Your task to perform on an android device: check data usage Image 0: 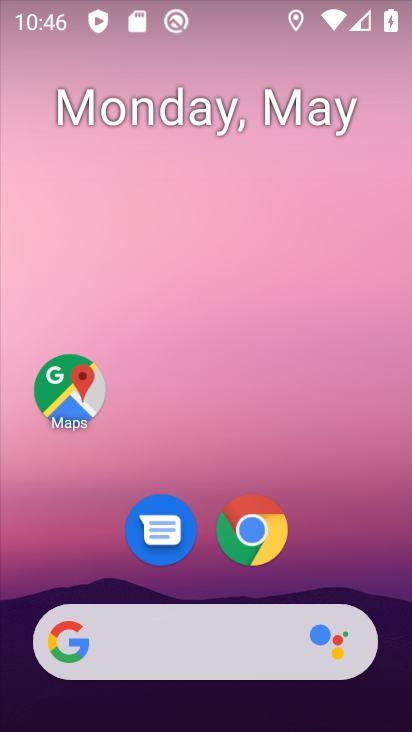
Step 0: drag from (352, 536) to (220, 157)
Your task to perform on an android device: check data usage Image 1: 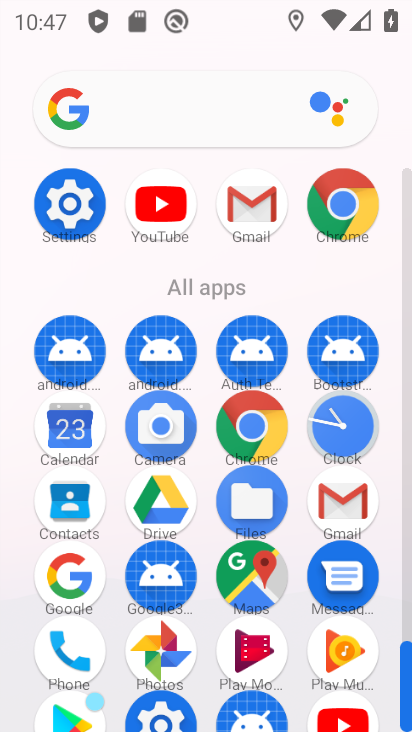
Step 1: click (71, 201)
Your task to perform on an android device: check data usage Image 2: 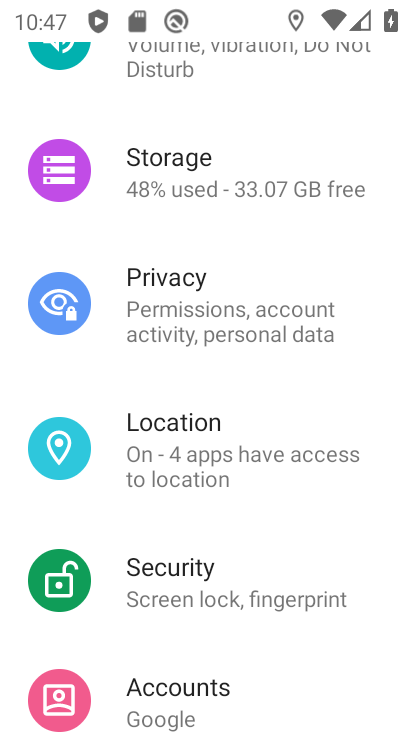
Step 2: drag from (306, 254) to (293, 384)
Your task to perform on an android device: check data usage Image 3: 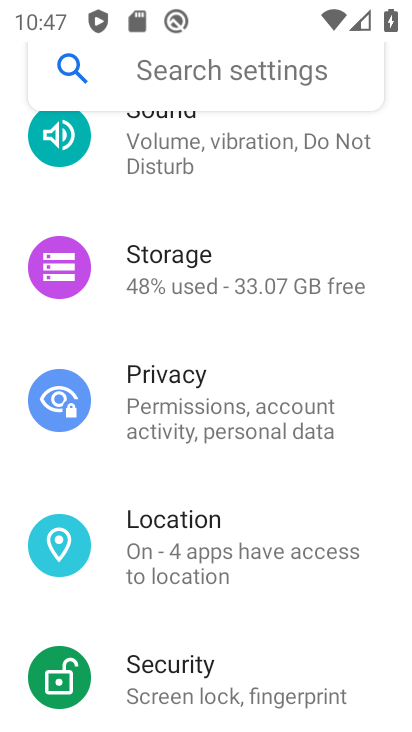
Step 3: drag from (250, 238) to (273, 385)
Your task to perform on an android device: check data usage Image 4: 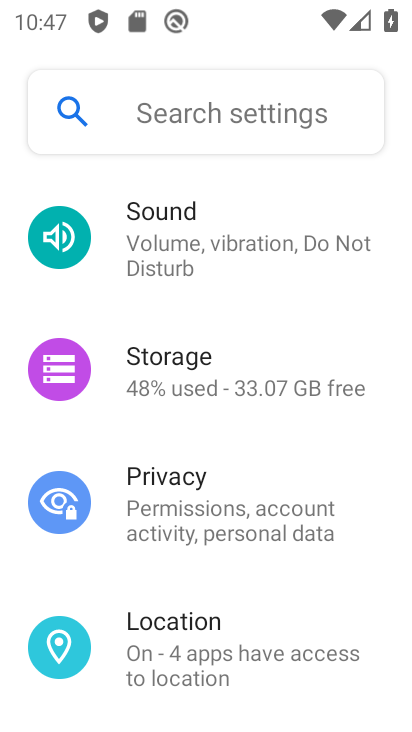
Step 4: drag from (274, 187) to (290, 395)
Your task to perform on an android device: check data usage Image 5: 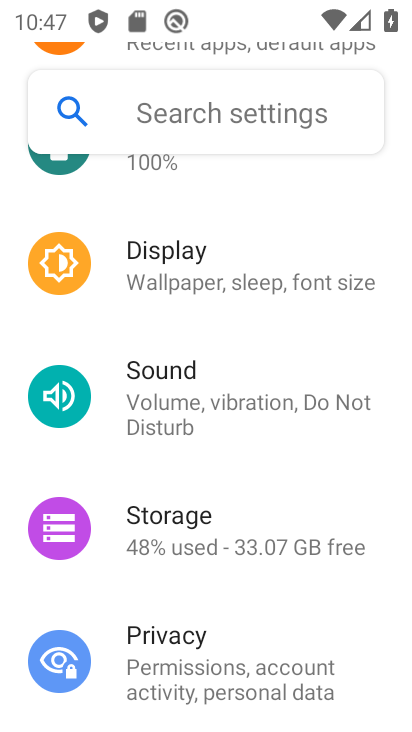
Step 5: drag from (250, 198) to (311, 388)
Your task to perform on an android device: check data usage Image 6: 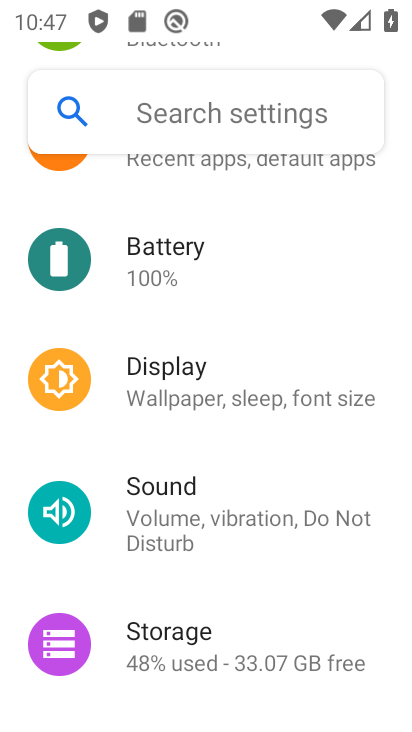
Step 6: drag from (284, 226) to (307, 354)
Your task to perform on an android device: check data usage Image 7: 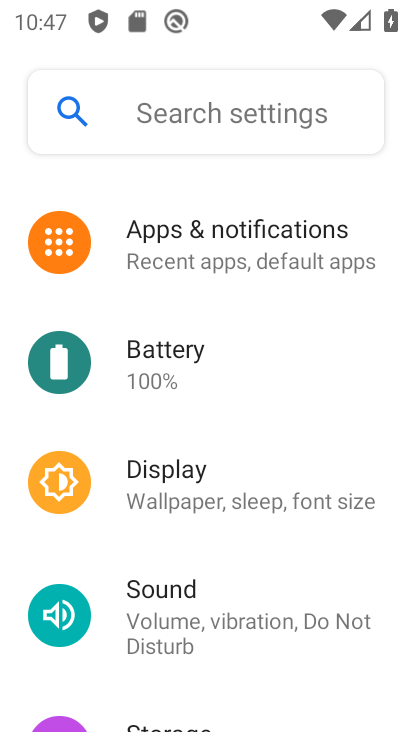
Step 7: drag from (239, 197) to (270, 349)
Your task to perform on an android device: check data usage Image 8: 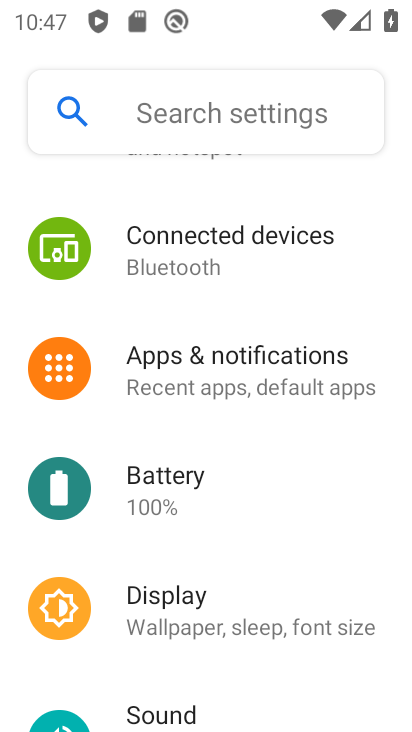
Step 8: drag from (249, 193) to (253, 393)
Your task to perform on an android device: check data usage Image 9: 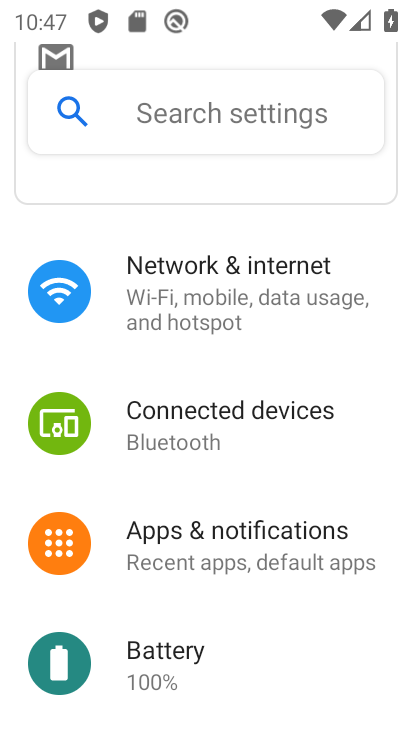
Step 9: click (203, 271)
Your task to perform on an android device: check data usage Image 10: 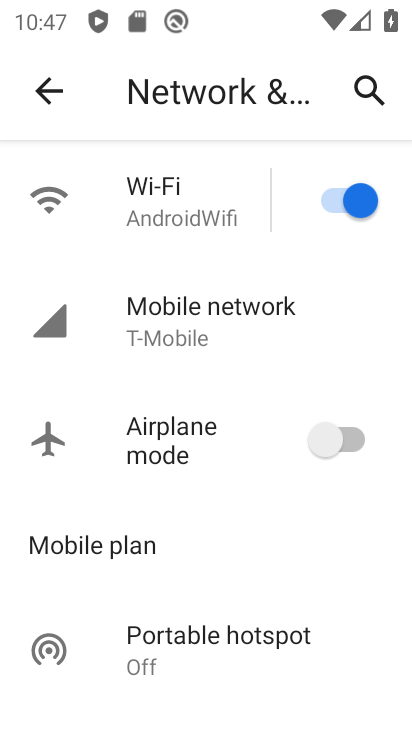
Step 10: click (179, 336)
Your task to perform on an android device: check data usage Image 11: 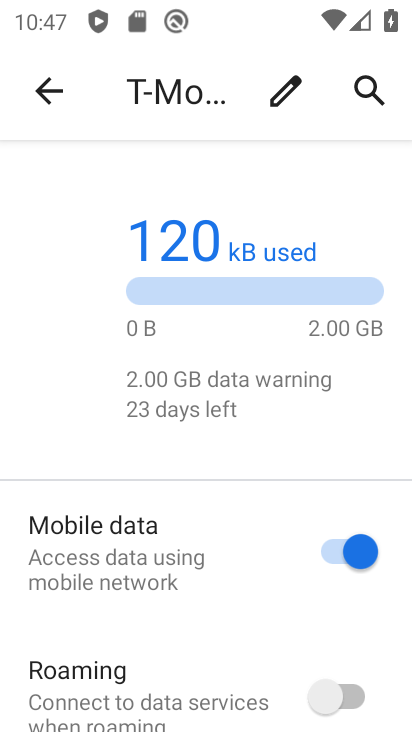
Step 11: task complete